Your task to perform on an android device: Open the Play Movies app and select the watchlist tab. Image 0: 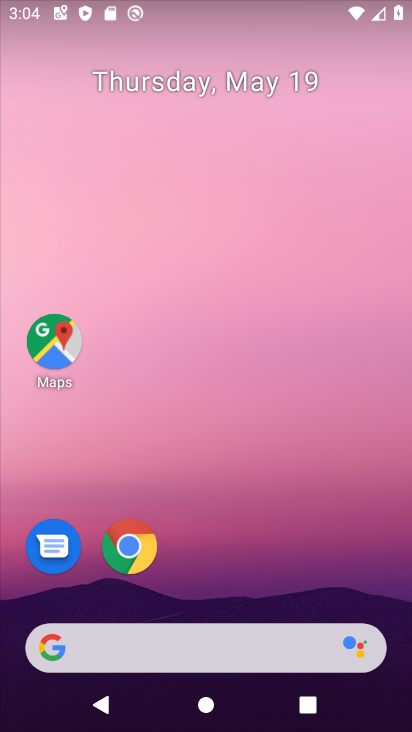
Step 0: drag from (241, 557) to (243, 215)
Your task to perform on an android device: Open the Play Movies app and select the watchlist tab. Image 1: 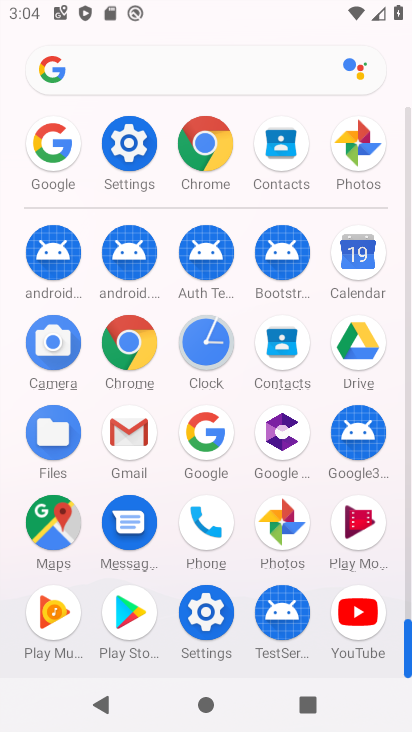
Step 1: drag from (242, 552) to (249, 366)
Your task to perform on an android device: Open the Play Movies app and select the watchlist tab. Image 2: 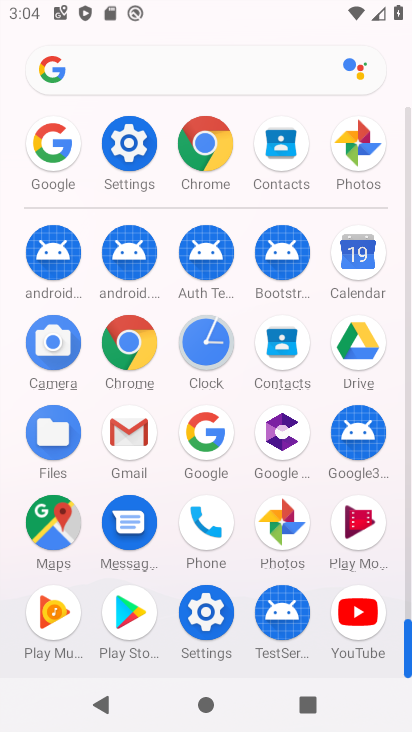
Step 2: click (356, 523)
Your task to perform on an android device: Open the Play Movies app and select the watchlist tab. Image 3: 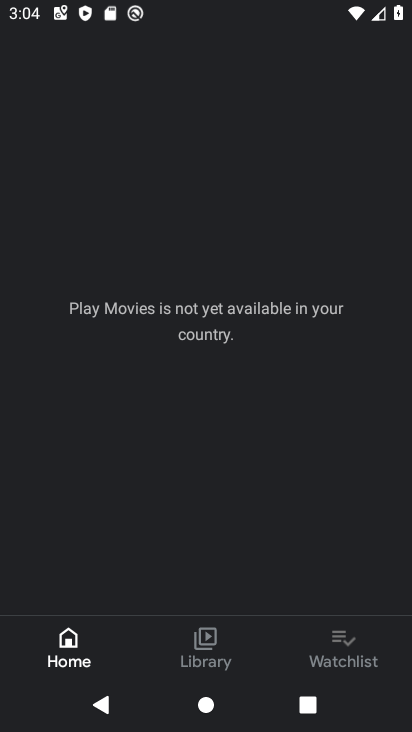
Step 3: click (341, 638)
Your task to perform on an android device: Open the Play Movies app and select the watchlist tab. Image 4: 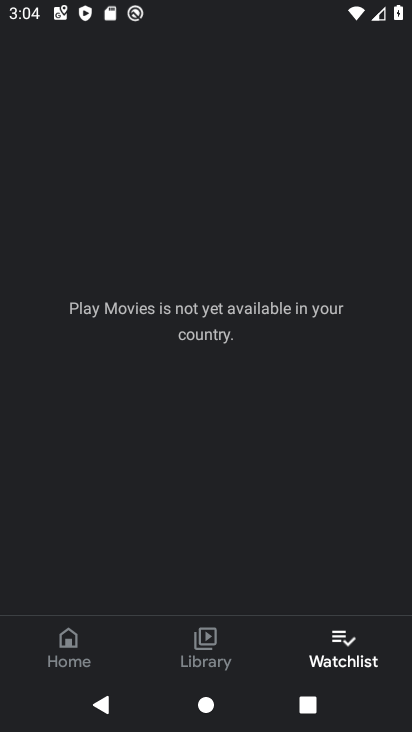
Step 4: task complete